Your task to perform on an android device: Go to accessibility settings Image 0: 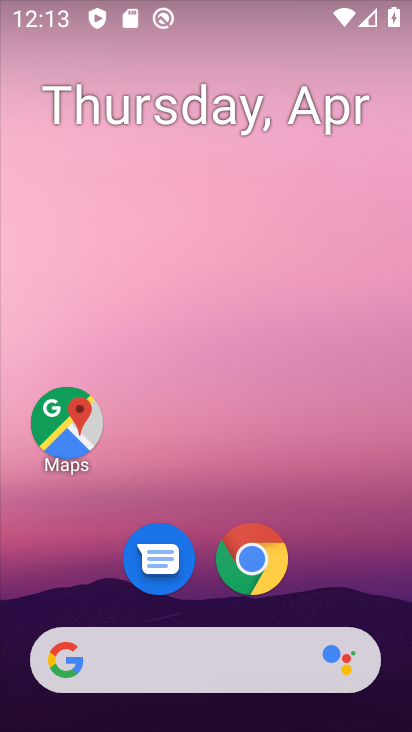
Step 0: drag from (203, 652) to (315, 325)
Your task to perform on an android device: Go to accessibility settings Image 1: 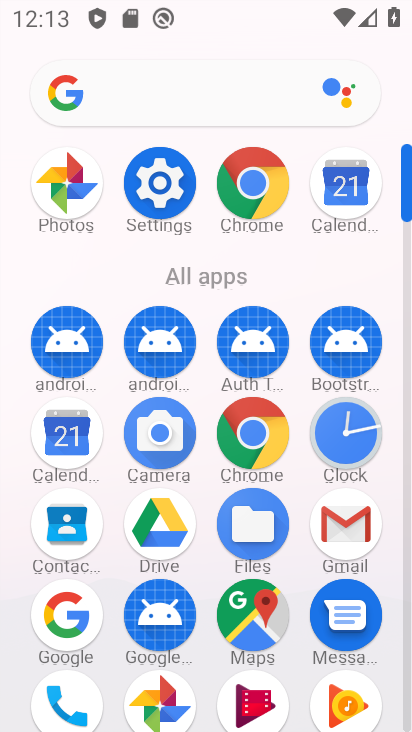
Step 1: drag from (261, 602) to (268, 406)
Your task to perform on an android device: Go to accessibility settings Image 2: 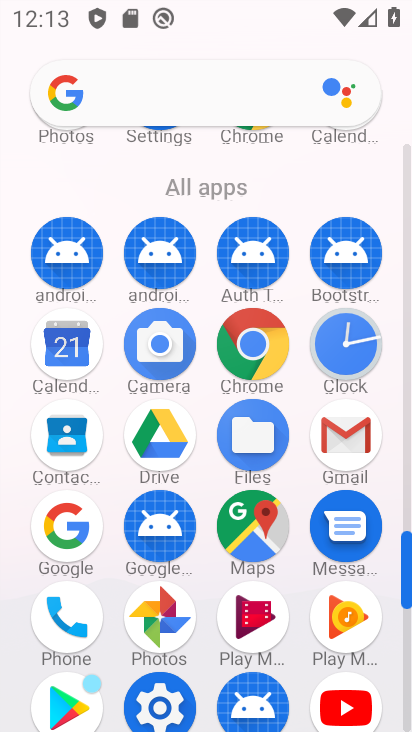
Step 2: click (176, 703)
Your task to perform on an android device: Go to accessibility settings Image 3: 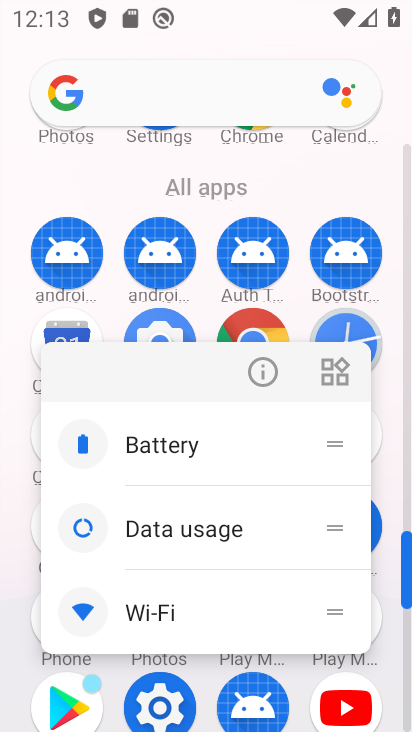
Step 3: click (178, 710)
Your task to perform on an android device: Go to accessibility settings Image 4: 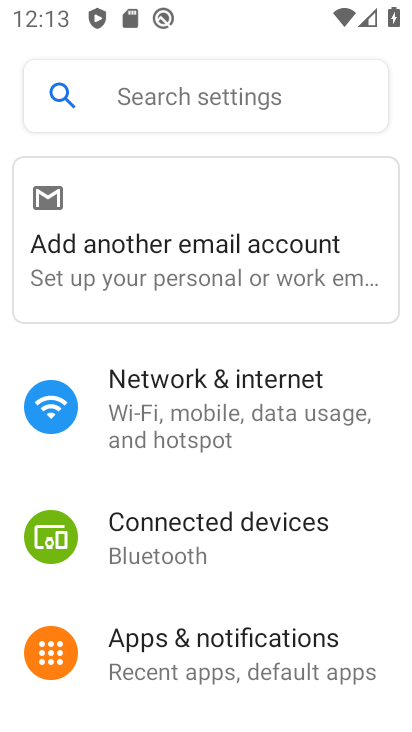
Step 4: drag from (220, 697) to (227, 481)
Your task to perform on an android device: Go to accessibility settings Image 5: 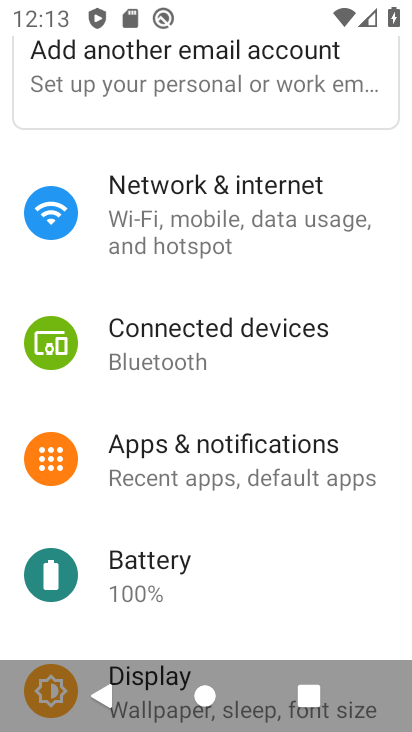
Step 5: drag from (257, 567) to (257, 414)
Your task to perform on an android device: Go to accessibility settings Image 6: 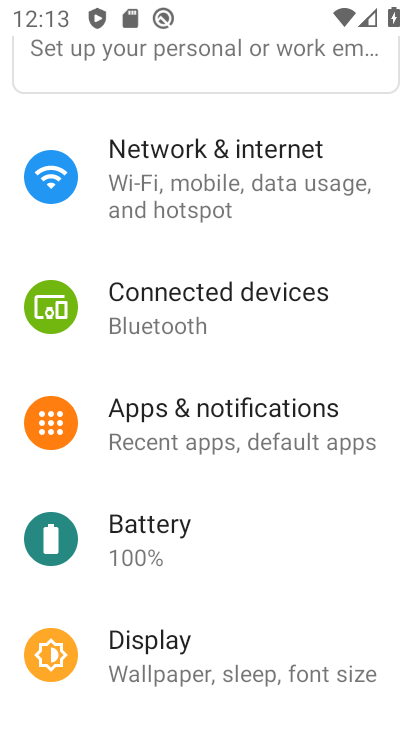
Step 6: drag from (237, 665) to (260, 502)
Your task to perform on an android device: Go to accessibility settings Image 7: 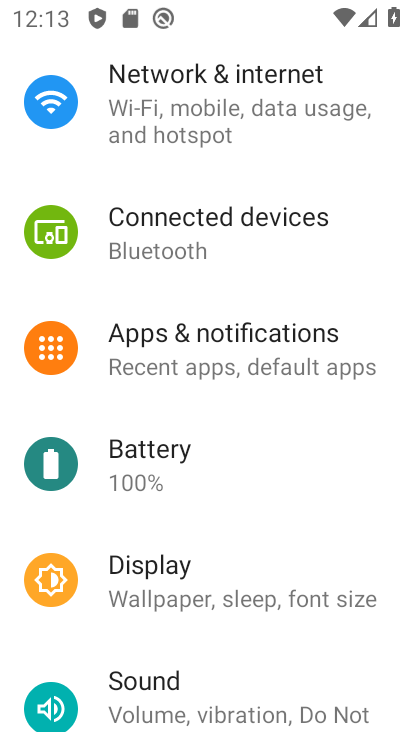
Step 7: drag from (258, 638) to (264, 491)
Your task to perform on an android device: Go to accessibility settings Image 8: 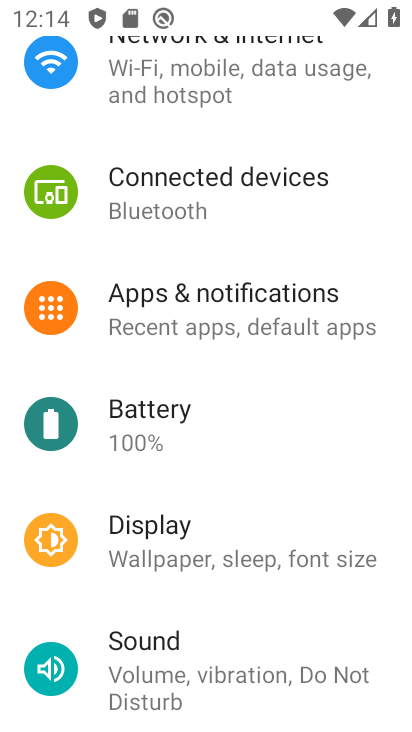
Step 8: drag from (241, 696) to (250, 453)
Your task to perform on an android device: Go to accessibility settings Image 9: 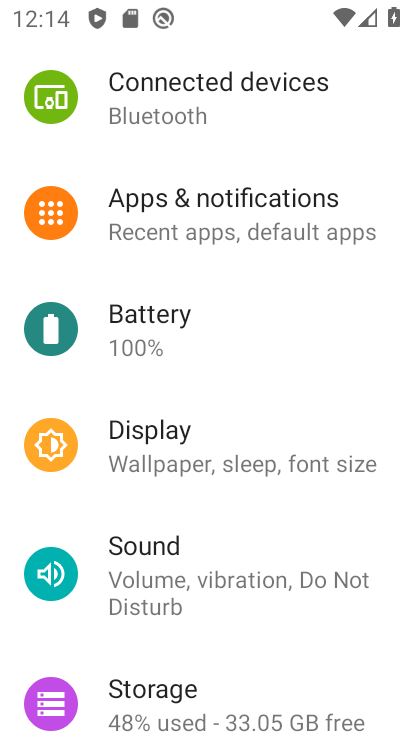
Step 9: drag from (243, 605) to (235, 456)
Your task to perform on an android device: Go to accessibility settings Image 10: 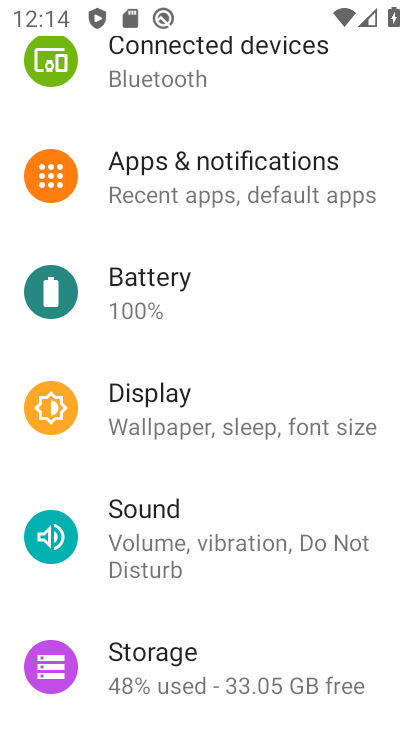
Step 10: drag from (224, 600) to (220, 442)
Your task to perform on an android device: Go to accessibility settings Image 11: 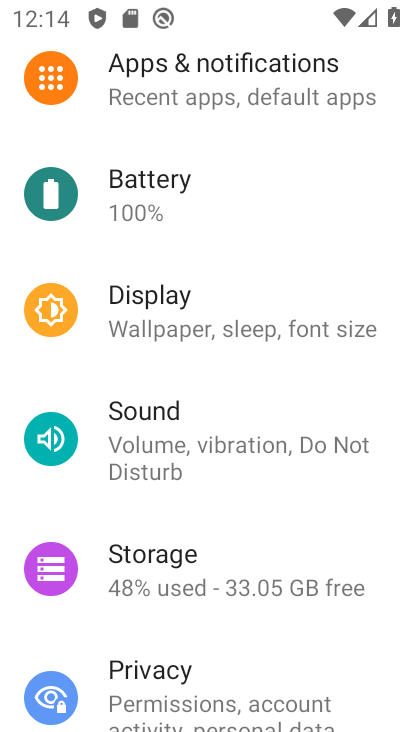
Step 11: drag from (243, 700) to (246, 525)
Your task to perform on an android device: Go to accessibility settings Image 12: 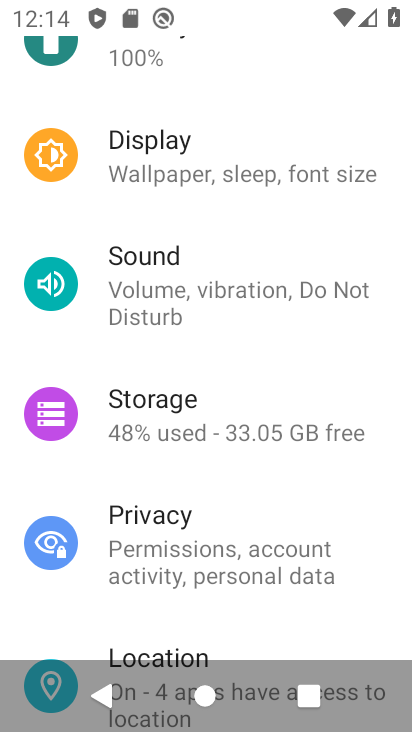
Step 12: drag from (260, 621) to (271, 457)
Your task to perform on an android device: Go to accessibility settings Image 13: 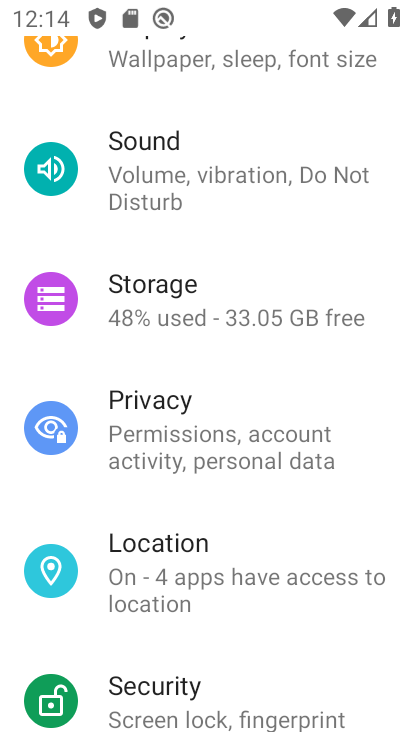
Step 13: drag from (279, 632) to (277, 539)
Your task to perform on an android device: Go to accessibility settings Image 14: 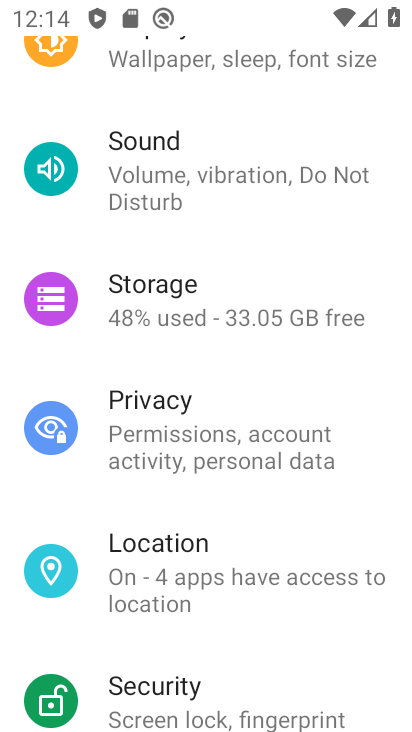
Step 14: drag from (252, 653) to (236, 461)
Your task to perform on an android device: Go to accessibility settings Image 15: 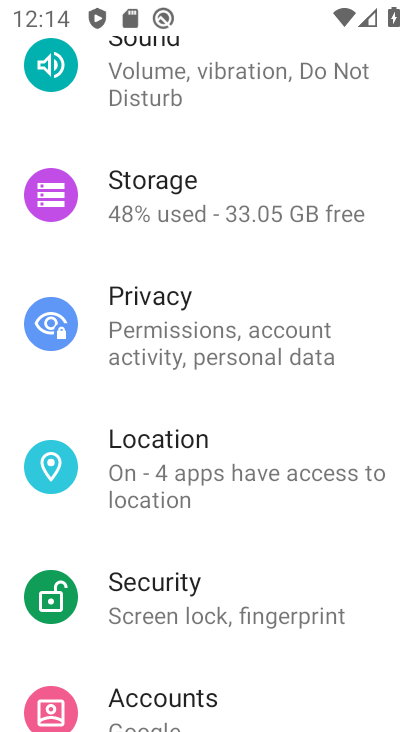
Step 15: drag from (230, 666) to (225, 433)
Your task to perform on an android device: Go to accessibility settings Image 16: 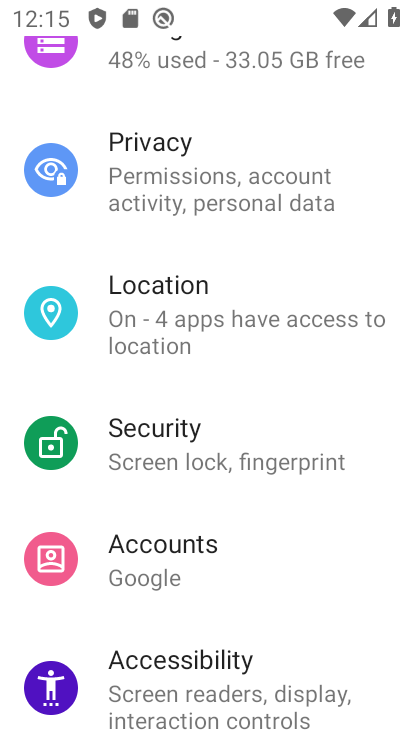
Step 16: click (245, 686)
Your task to perform on an android device: Go to accessibility settings Image 17: 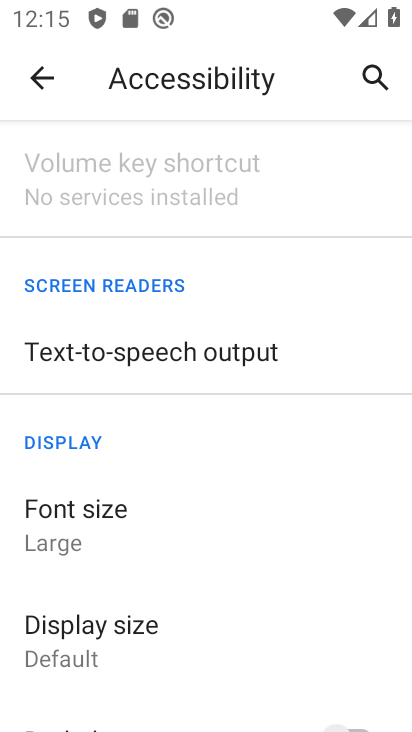
Step 17: task complete